Your task to perform on an android device: add a contact in the contacts app Image 0: 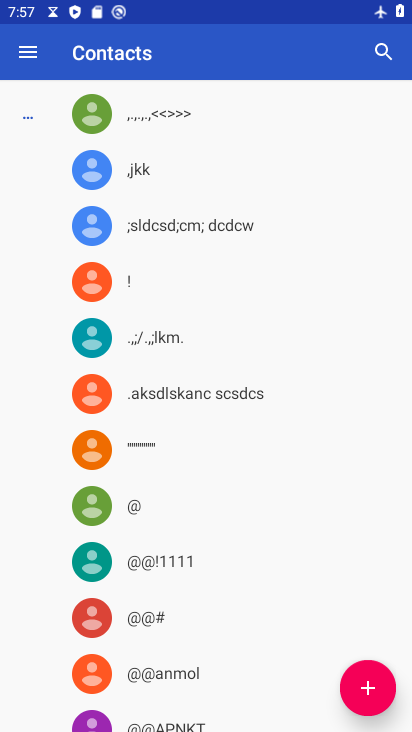
Step 0: click (377, 687)
Your task to perform on an android device: add a contact in the contacts app Image 1: 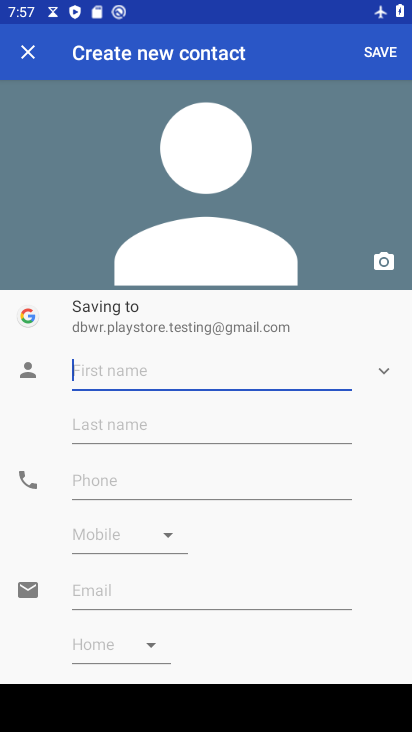
Step 1: type "fsgfsg"
Your task to perform on an android device: add a contact in the contacts app Image 2: 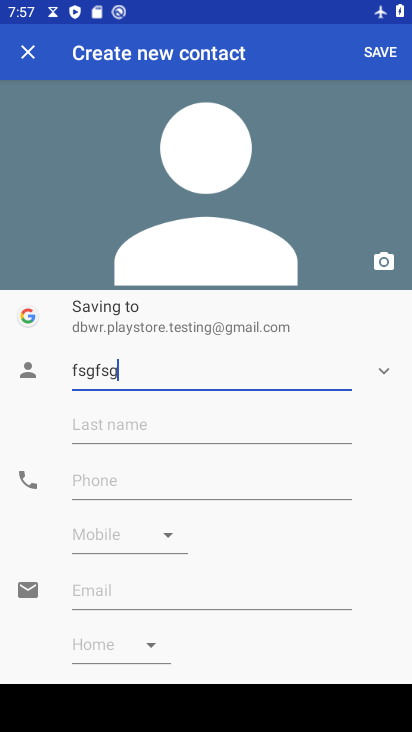
Step 2: click (120, 477)
Your task to perform on an android device: add a contact in the contacts app Image 3: 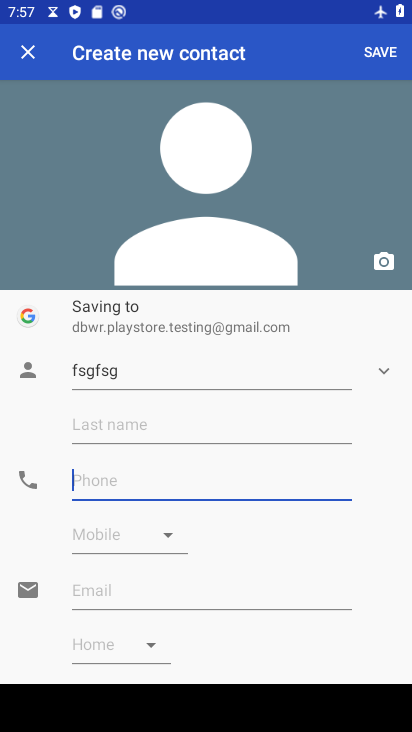
Step 3: type "3456543"
Your task to perform on an android device: add a contact in the contacts app Image 4: 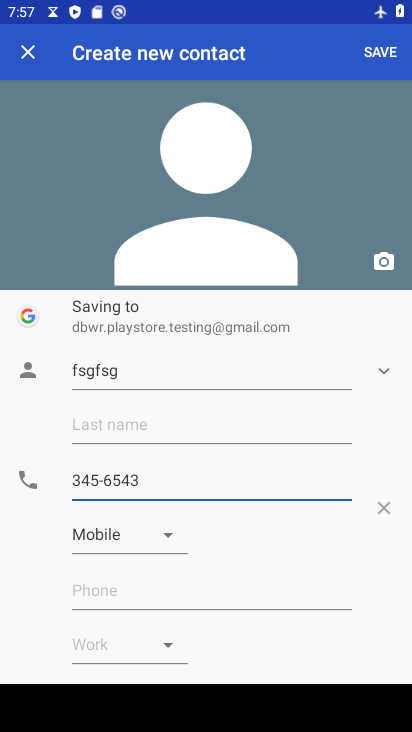
Step 4: click (395, 51)
Your task to perform on an android device: add a contact in the contacts app Image 5: 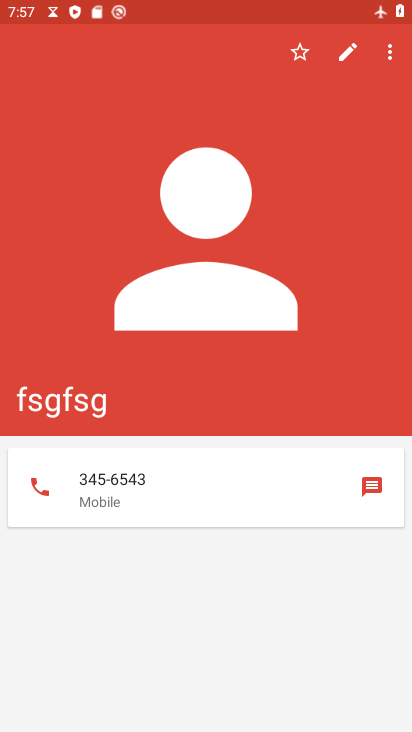
Step 5: task complete